Your task to perform on an android device: toggle sleep mode Image 0: 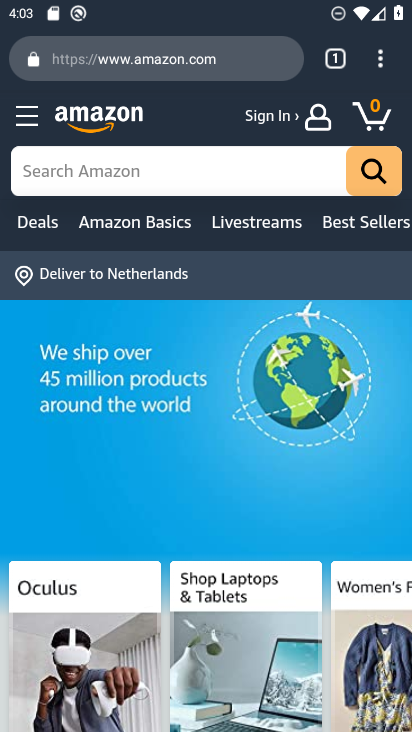
Step 0: press back button
Your task to perform on an android device: toggle sleep mode Image 1: 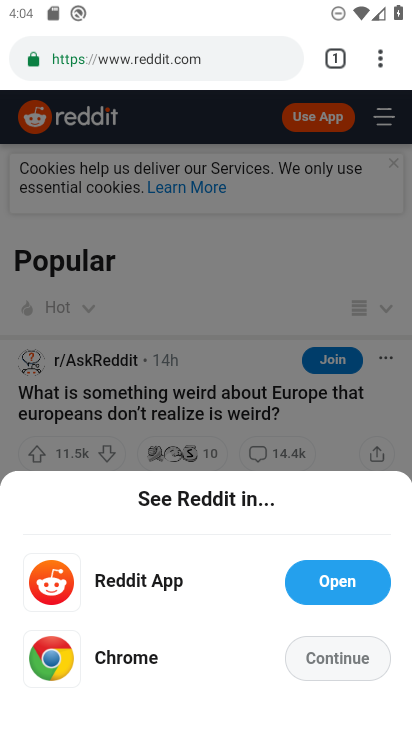
Step 1: press back button
Your task to perform on an android device: toggle sleep mode Image 2: 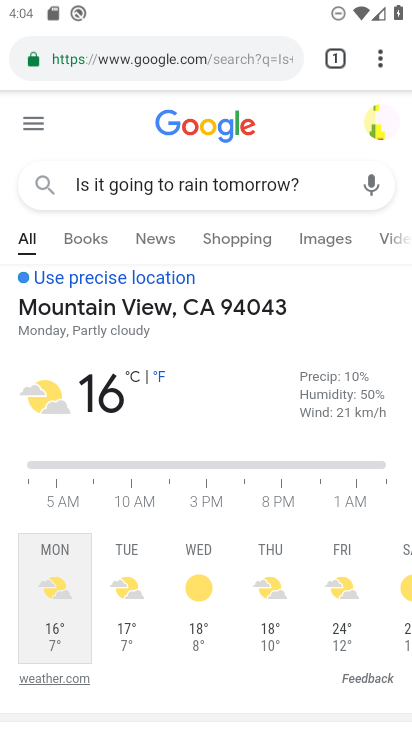
Step 2: press back button
Your task to perform on an android device: toggle sleep mode Image 3: 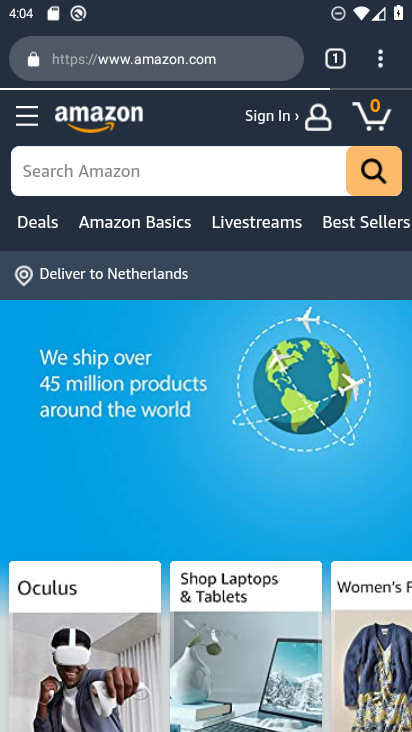
Step 3: press home button
Your task to perform on an android device: toggle sleep mode Image 4: 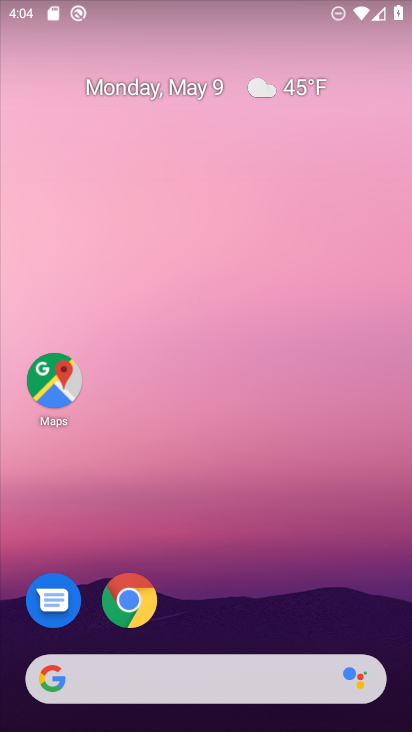
Step 4: drag from (236, 602) to (252, 3)
Your task to perform on an android device: toggle sleep mode Image 5: 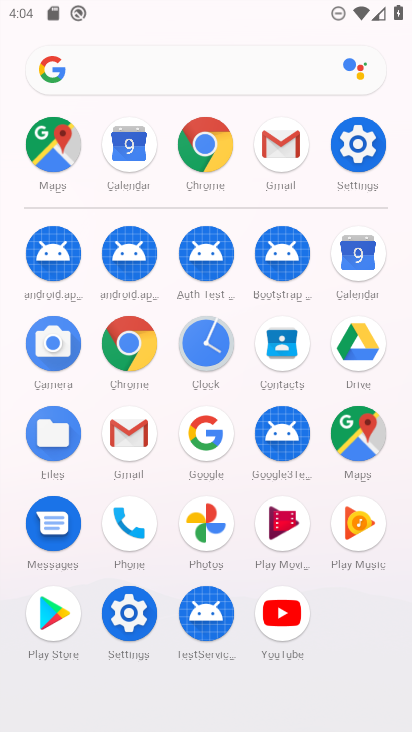
Step 5: click (126, 615)
Your task to perform on an android device: toggle sleep mode Image 6: 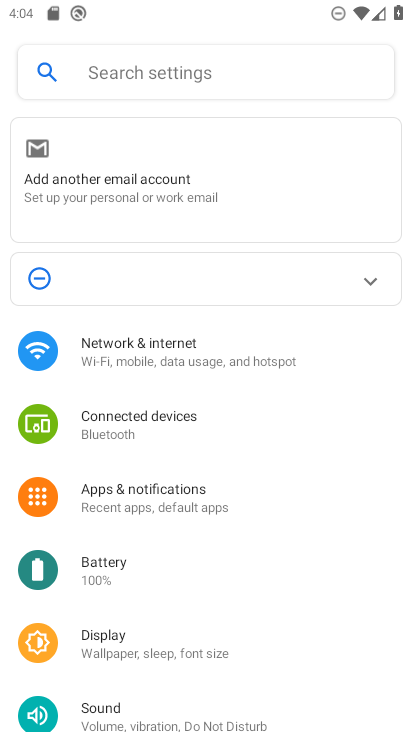
Step 6: drag from (296, 602) to (309, 172)
Your task to perform on an android device: toggle sleep mode Image 7: 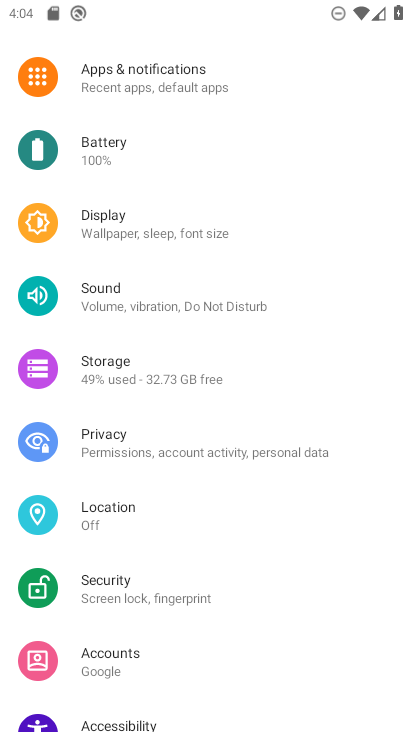
Step 7: drag from (283, 209) to (279, 561)
Your task to perform on an android device: toggle sleep mode Image 8: 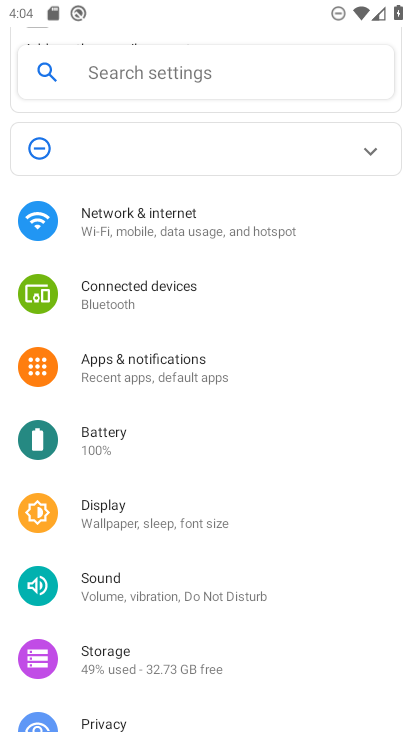
Step 8: click (145, 525)
Your task to perform on an android device: toggle sleep mode Image 9: 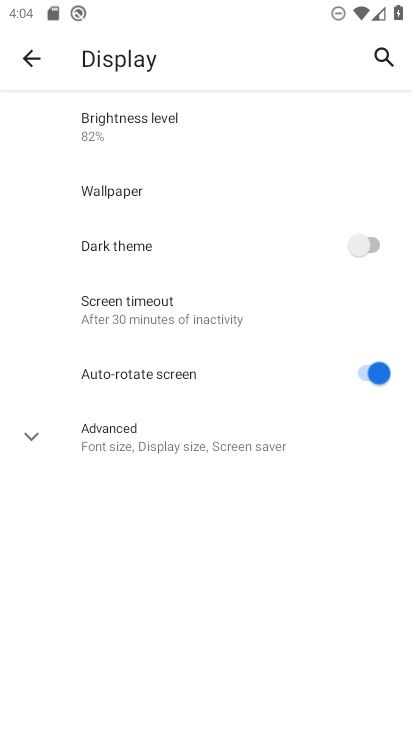
Step 9: click (37, 428)
Your task to perform on an android device: toggle sleep mode Image 10: 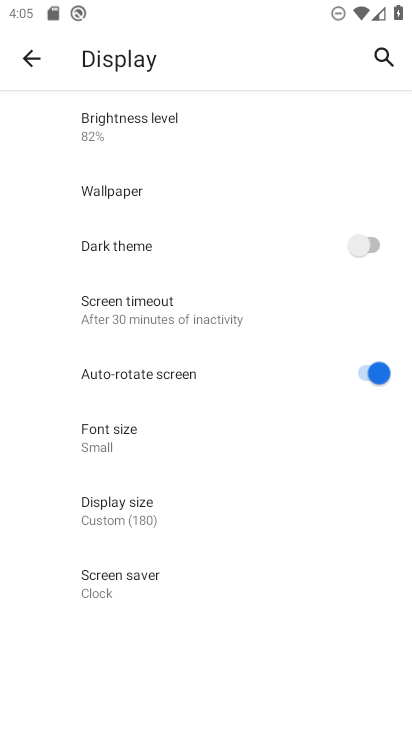
Step 10: task complete